Your task to perform on an android device: Toggle the flashlight Image 0: 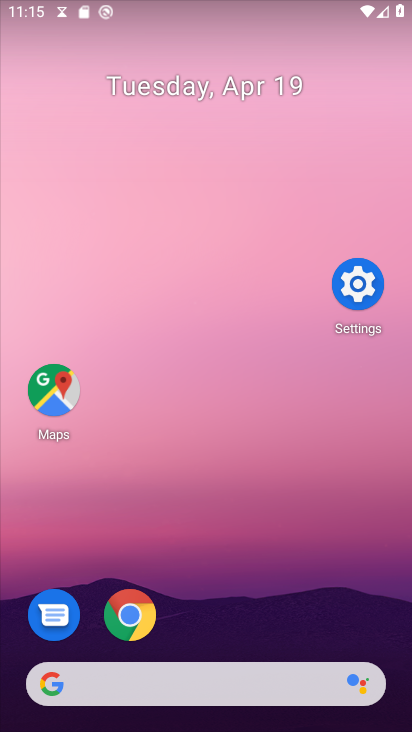
Step 0: drag from (228, 595) to (204, 82)
Your task to perform on an android device: Toggle the flashlight Image 1: 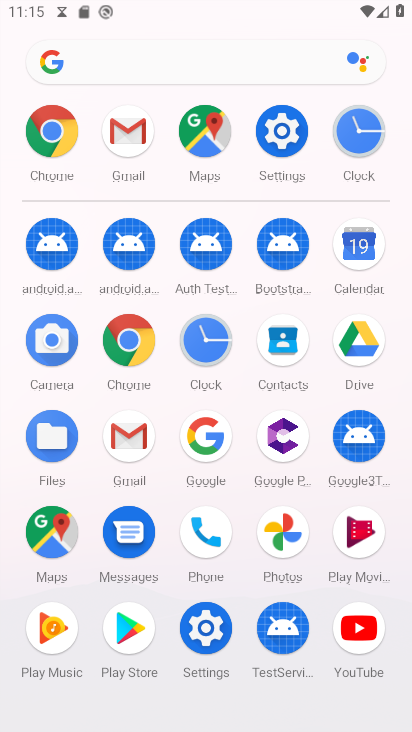
Step 1: click (282, 133)
Your task to perform on an android device: Toggle the flashlight Image 2: 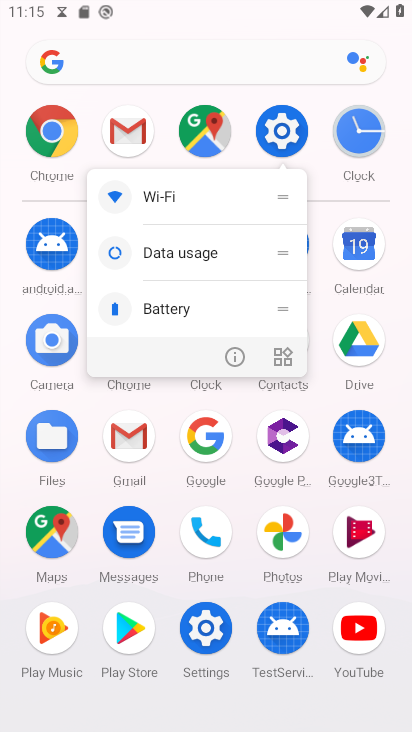
Step 2: click (231, 358)
Your task to perform on an android device: Toggle the flashlight Image 3: 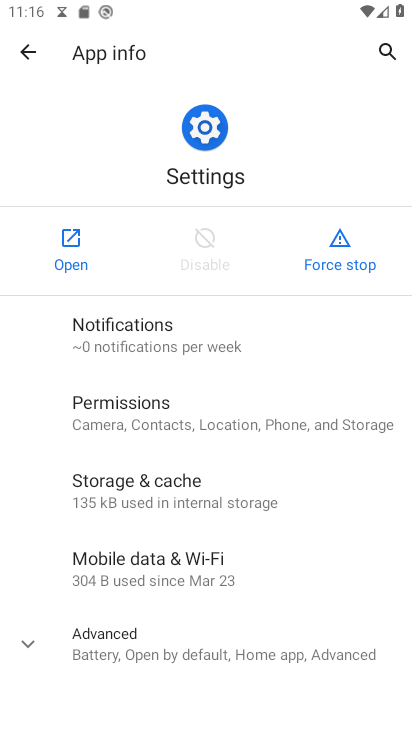
Step 3: click (80, 236)
Your task to perform on an android device: Toggle the flashlight Image 4: 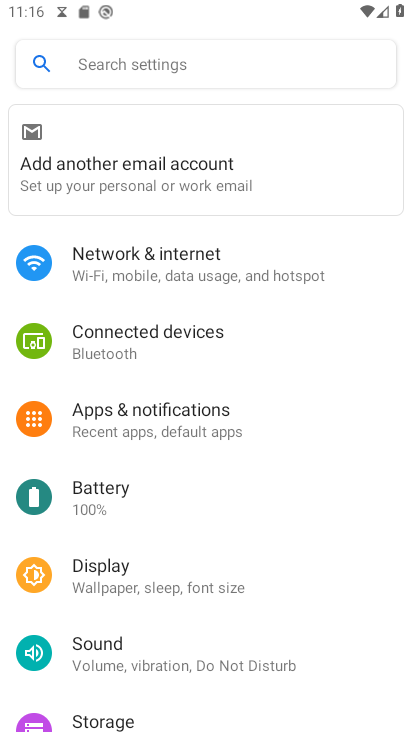
Step 4: click (196, 56)
Your task to perform on an android device: Toggle the flashlight Image 5: 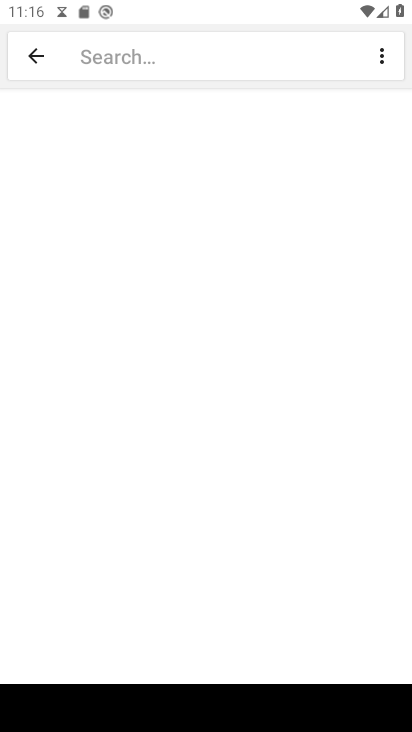
Step 5: type "flashlight"
Your task to perform on an android device: Toggle the flashlight Image 6: 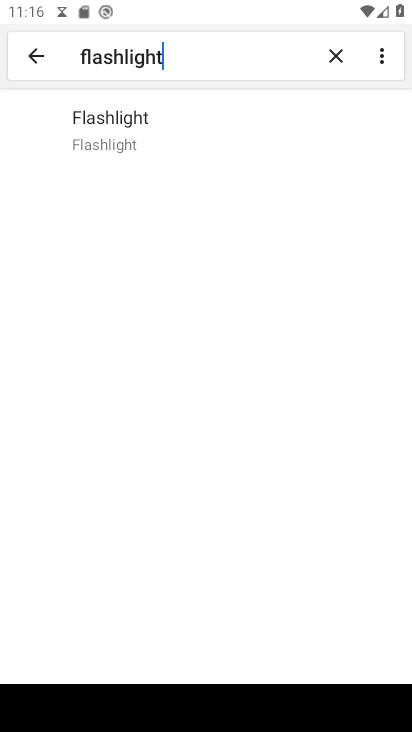
Step 6: click (215, 137)
Your task to perform on an android device: Toggle the flashlight Image 7: 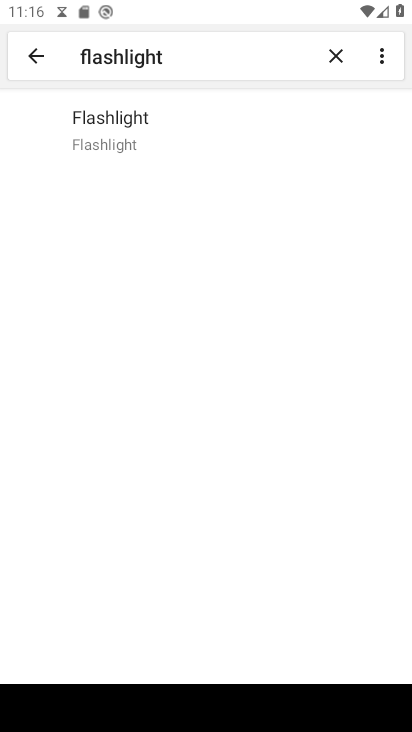
Step 7: task complete